Your task to perform on an android device: turn on sleep mode Image 0: 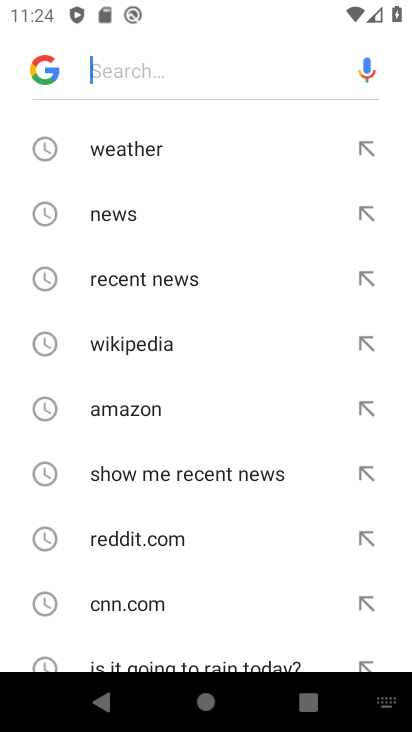
Step 0: press home button
Your task to perform on an android device: turn on sleep mode Image 1: 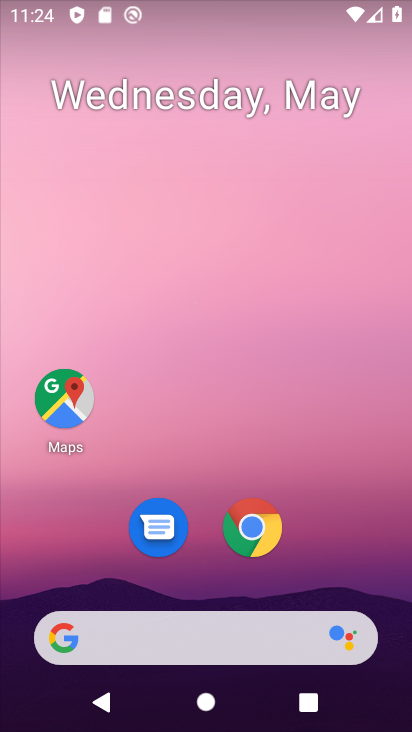
Step 1: drag from (336, 568) to (291, 73)
Your task to perform on an android device: turn on sleep mode Image 2: 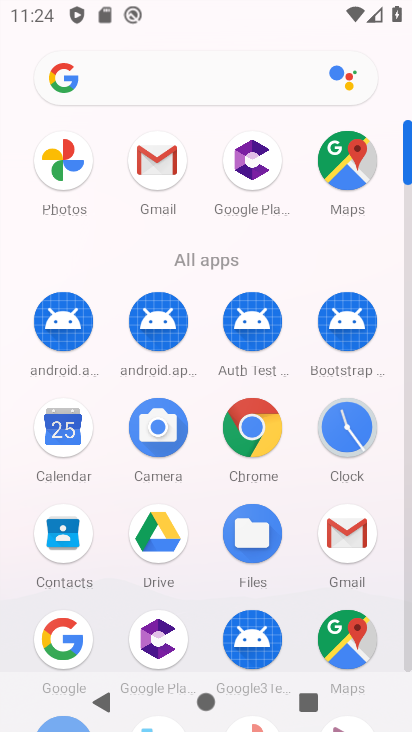
Step 2: click (410, 667)
Your task to perform on an android device: turn on sleep mode Image 3: 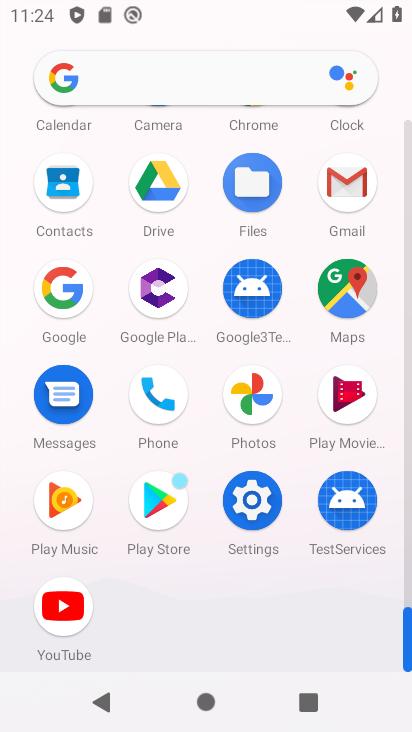
Step 3: click (242, 498)
Your task to perform on an android device: turn on sleep mode Image 4: 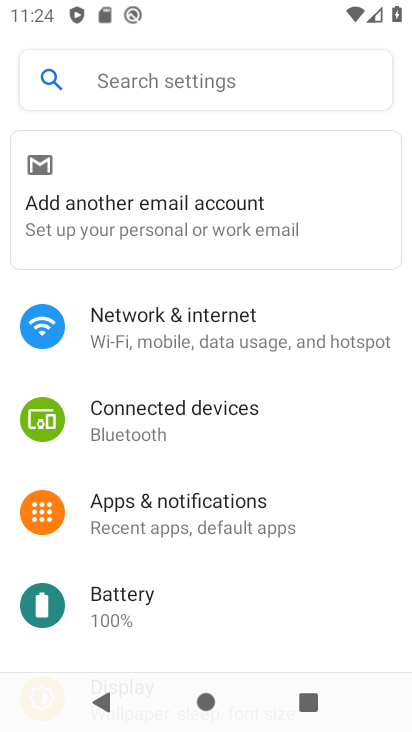
Step 4: drag from (153, 612) to (191, 228)
Your task to perform on an android device: turn on sleep mode Image 5: 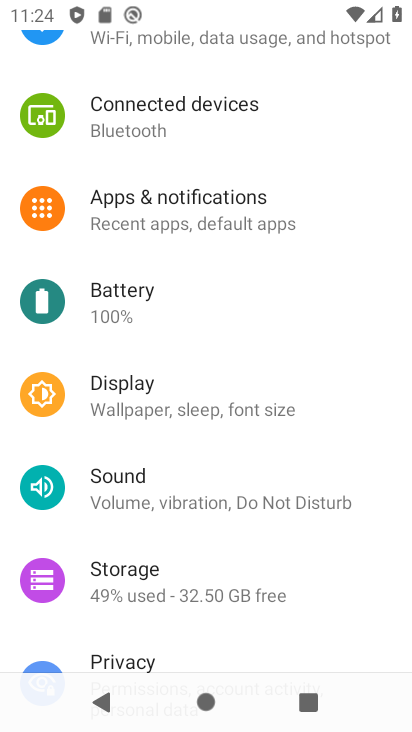
Step 5: click (140, 430)
Your task to perform on an android device: turn on sleep mode Image 6: 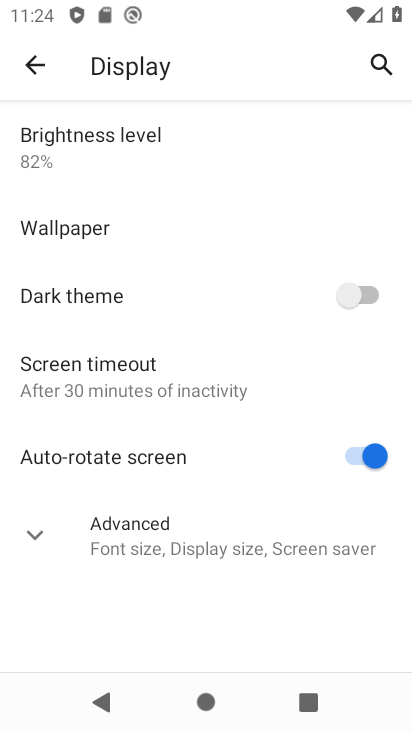
Step 6: click (171, 538)
Your task to perform on an android device: turn on sleep mode Image 7: 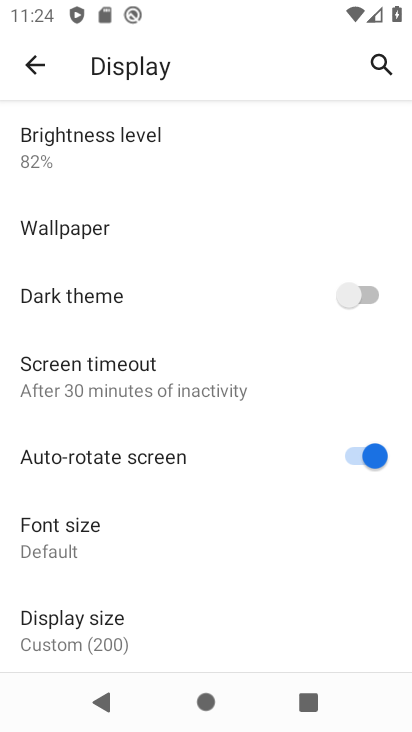
Step 7: task complete